Your task to perform on an android device: Search for Italian restaurants on Maps Image 0: 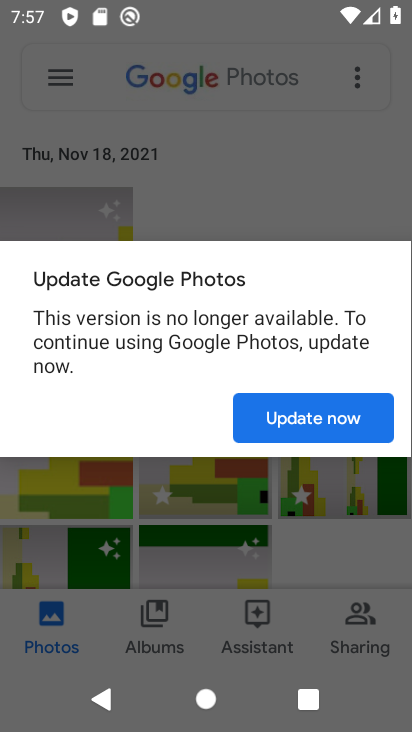
Step 0: press home button
Your task to perform on an android device: Search for Italian restaurants on Maps Image 1: 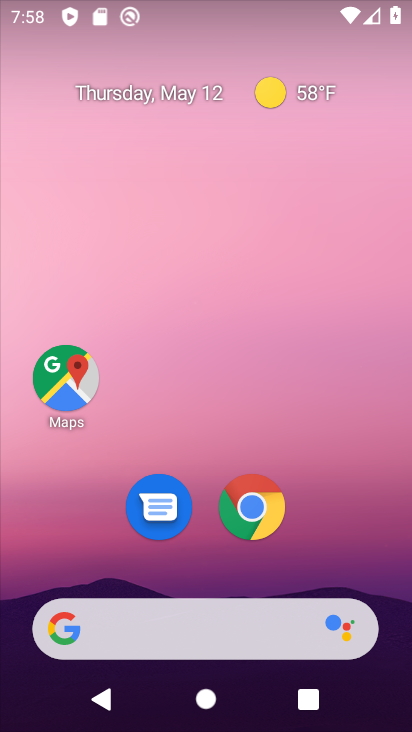
Step 1: click (76, 379)
Your task to perform on an android device: Search for Italian restaurants on Maps Image 2: 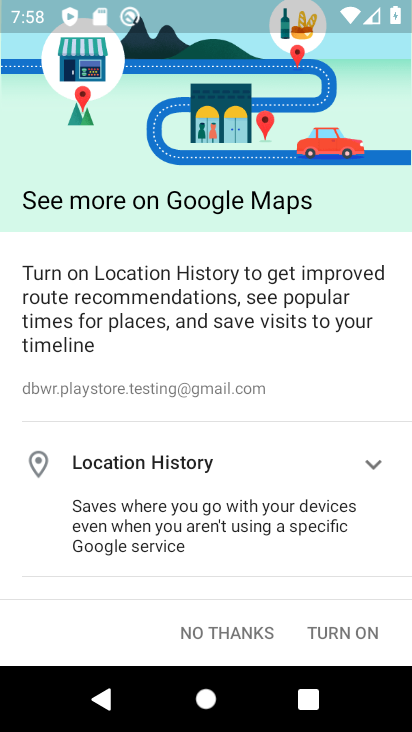
Step 2: click (352, 628)
Your task to perform on an android device: Search for Italian restaurants on Maps Image 3: 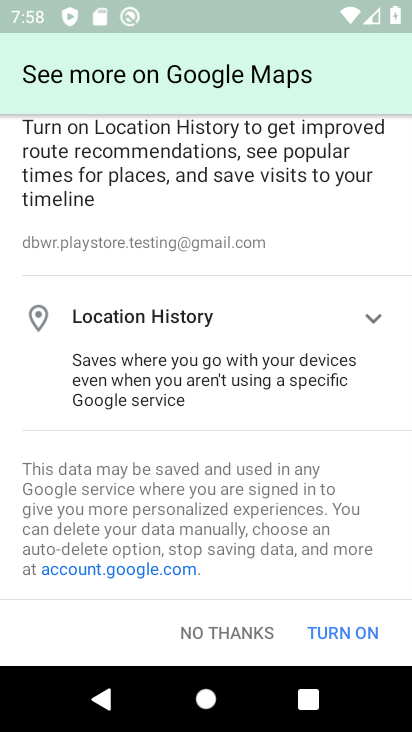
Step 3: click (353, 628)
Your task to perform on an android device: Search for Italian restaurants on Maps Image 4: 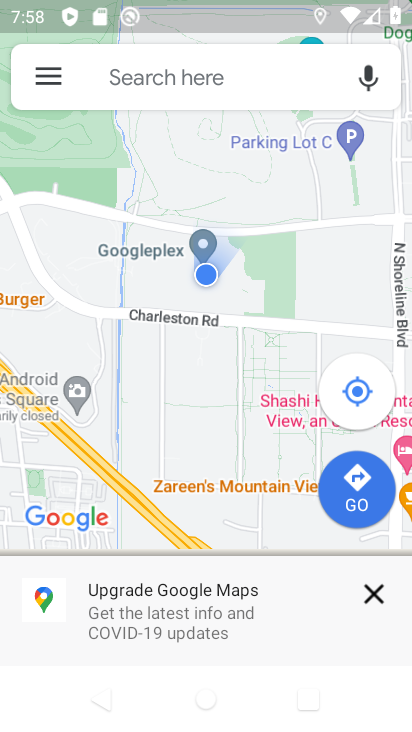
Step 4: click (211, 57)
Your task to perform on an android device: Search for Italian restaurants on Maps Image 5: 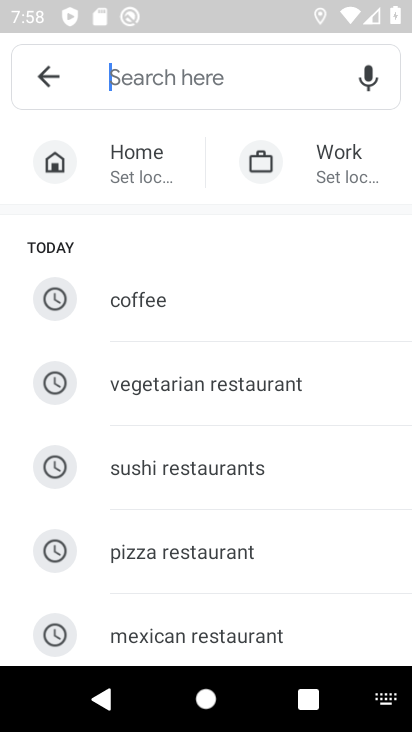
Step 5: type "Italian restaurants"
Your task to perform on an android device: Search for Italian restaurants on Maps Image 6: 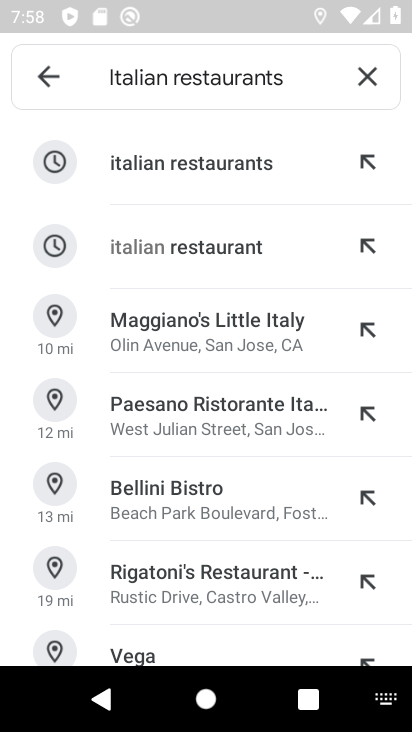
Step 6: click (187, 167)
Your task to perform on an android device: Search for Italian restaurants on Maps Image 7: 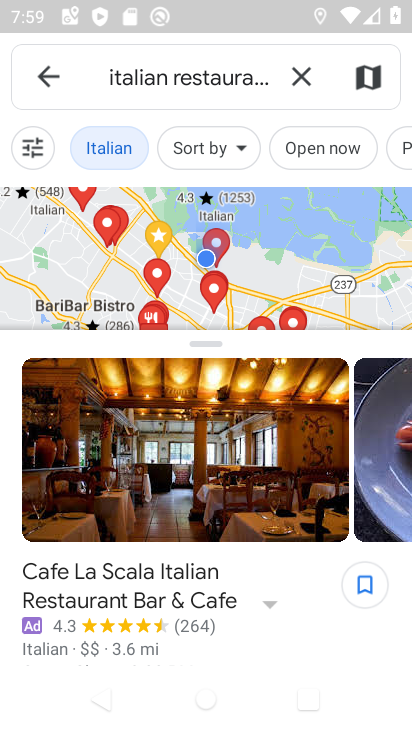
Step 7: task complete